Your task to perform on an android device: create a new album in the google photos Image 0: 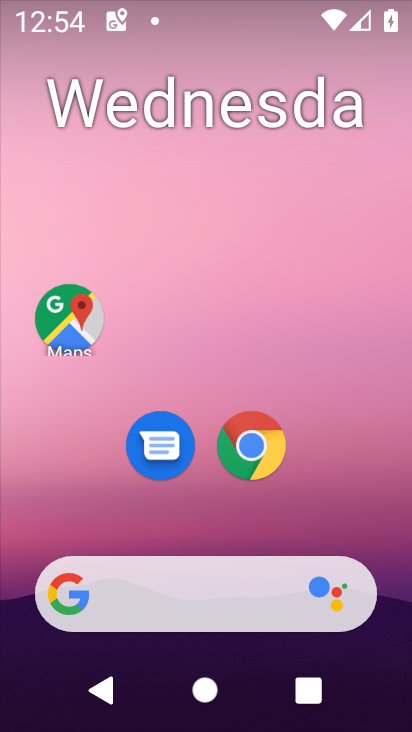
Step 0: drag from (374, 462) to (162, 228)
Your task to perform on an android device: create a new album in the google photos Image 1: 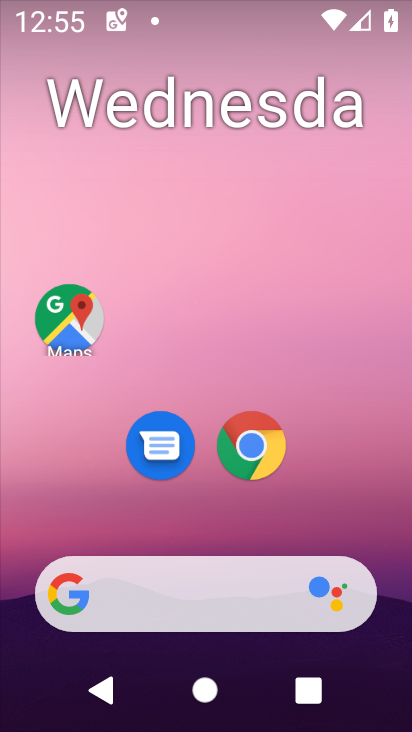
Step 1: drag from (334, 486) to (335, 158)
Your task to perform on an android device: create a new album in the google photos Image 2: 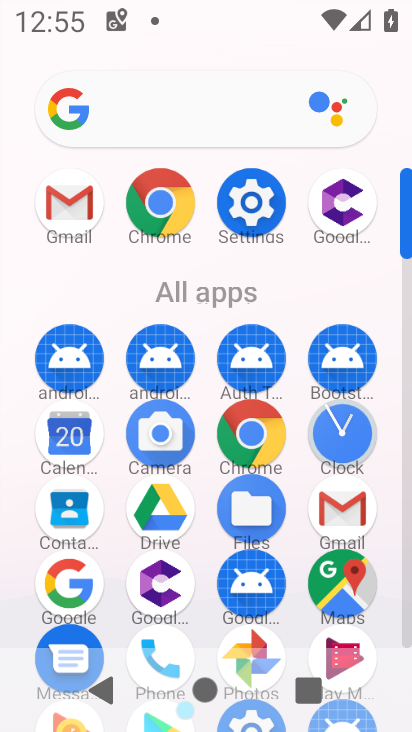
Step 2: drag from (290, 624) to (326, 304)
Your task to perform on an android device: create a new album in the google photos Image 3: 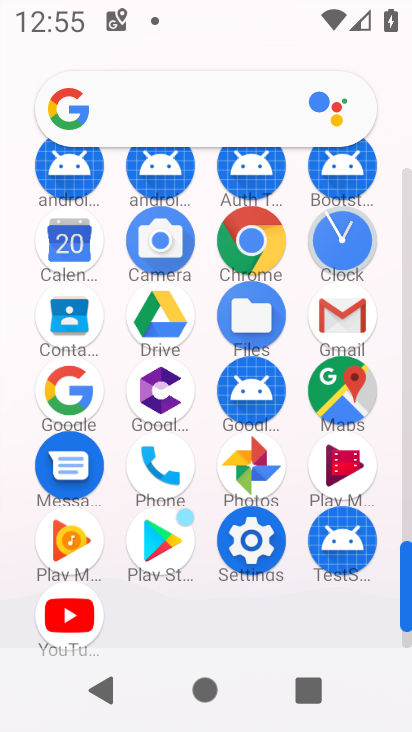
Step 3: click (261, 471)
Your task to perform on an android device: create a new album in the google photos Image 4: 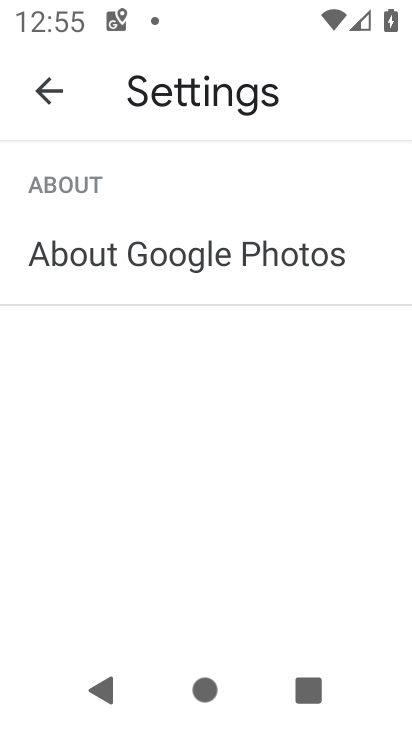
Step 4: click (51, 90)
Your task to perform on an android device: create a new album in the google photos Image 5: 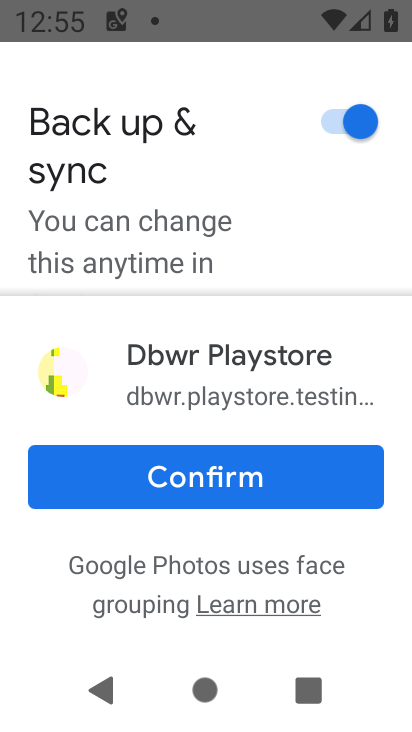
Step 5: click (178, 486)
Your task to perform on an android device: create a new album in the google photos Image 6: 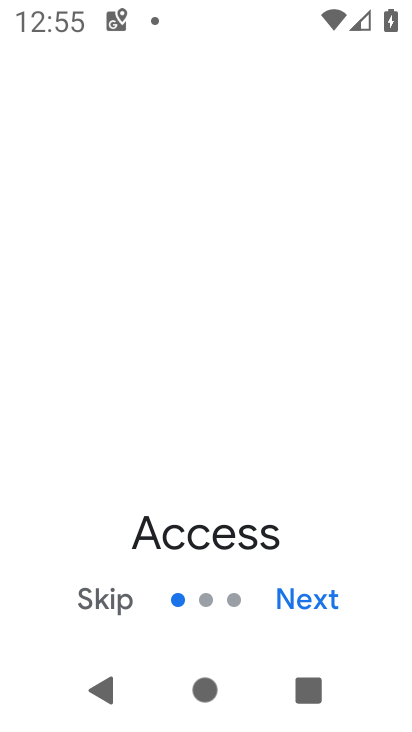
Step 6: click (320, 613)
Your task to perform on an android device: create a new album in the google photos Image 7: 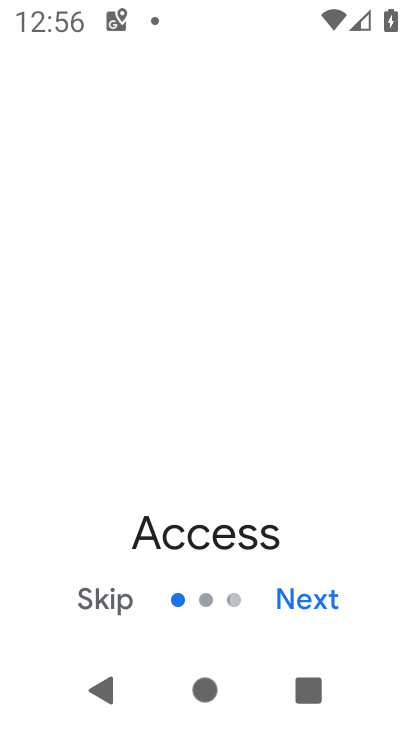
Step 7: click (319, 609)
Your task to perform on an android device: create a new album in the google photos Image 8: 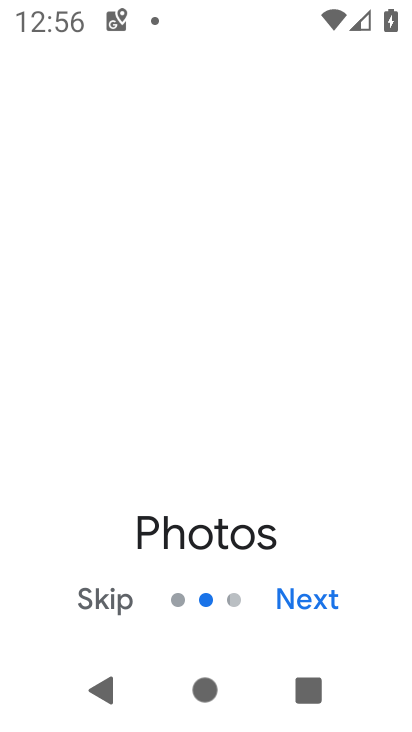
Step 8: click (319, 608)
Your task to perform on an android device: create a new album in the google photos Image 9: 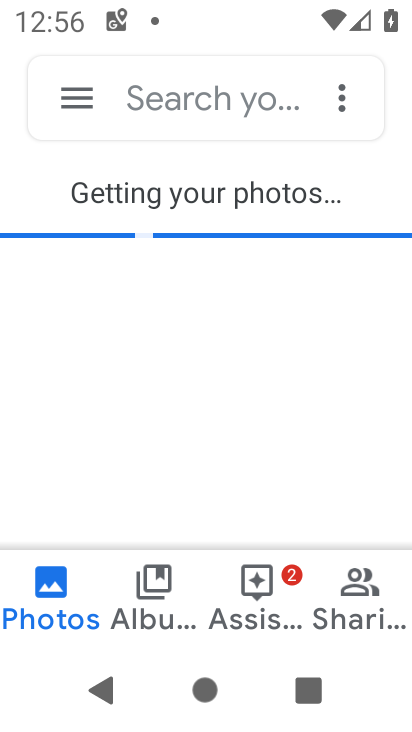
Step 9: click (150, 595)
Your task to perform on an android device: create a new album in the google photos Image 10: 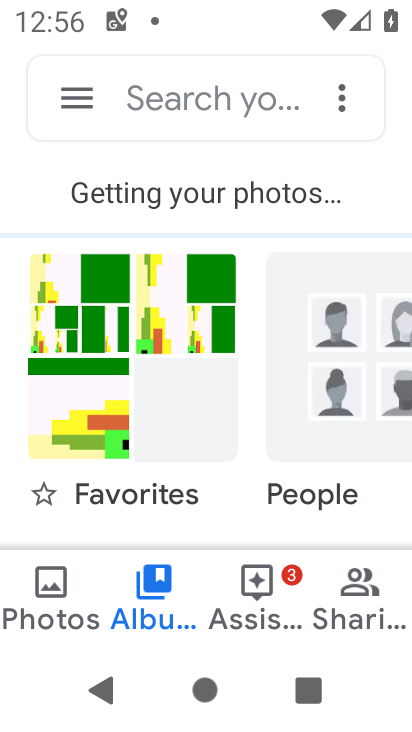
Step 10: click (338, 97)
Your task to perform on an android device: create a new album in the google photos Image 11: 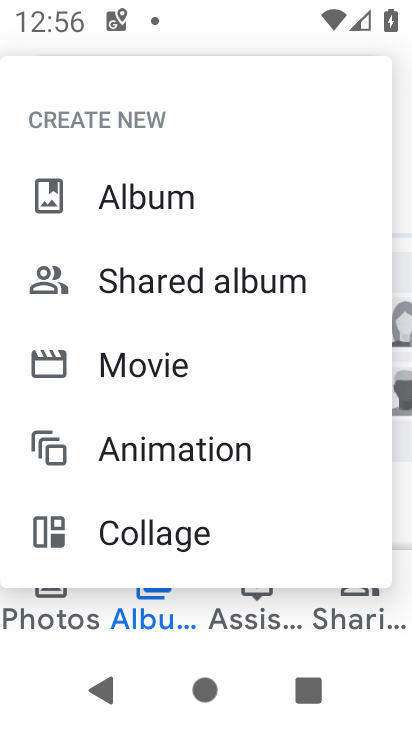
Step 11: click (171, 199)
Your task to perform on an android device: create a new album in the google photos Image 12: 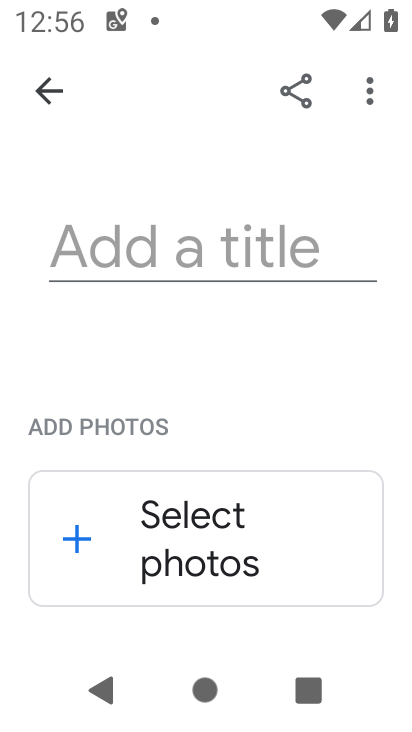
Step 12: click (202, 246)
Your task to perform on an android device: create a new album in the google photos Image 13: 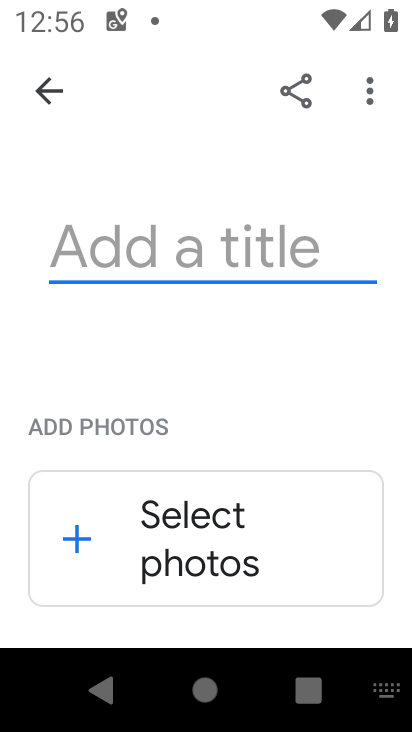
Step 13: type "jyutu"
Your task to perform on an android device: create a new album in the google photos Image 14: 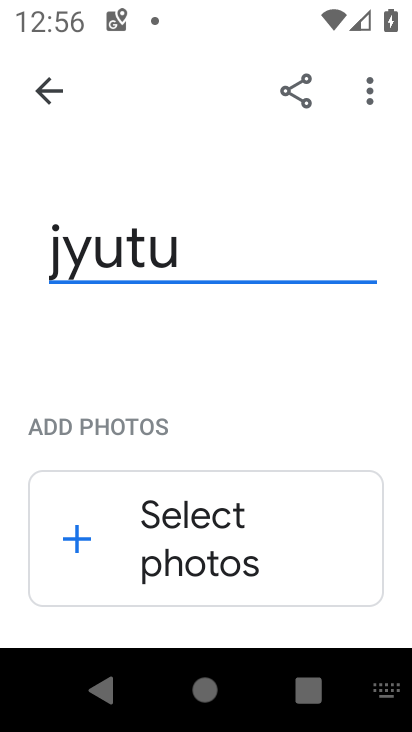
Step 14: click (220, 530)
Your task to perform on an android device: create a new album in the google photos Image 15: 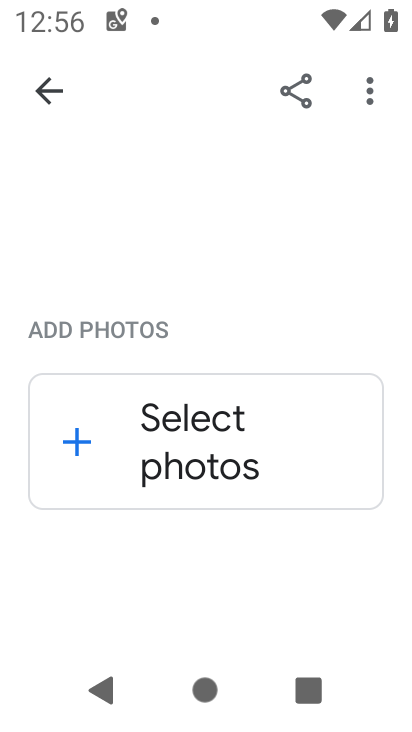
Step 15: click (215, 464)
Your task to perform on an android device: create a new album in the google photos Image 16: 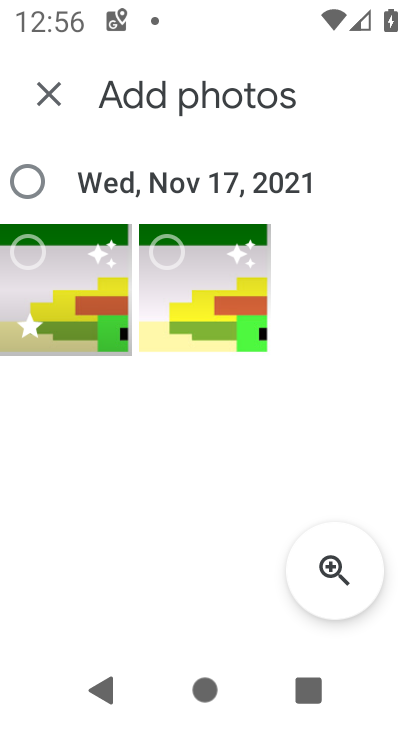
Step 16: click (205, 261)
Your task to perform on an android device: create a new album in the google photos Image 17: 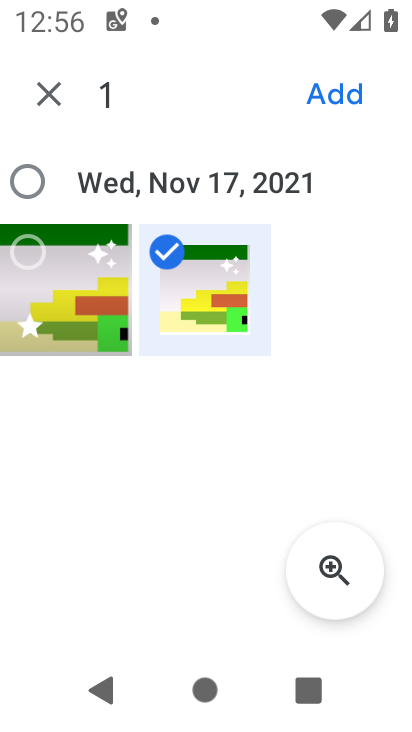
Step 17: click (329, 98)
Your task to perform on an android device: create a new album in the google photos Image 18: 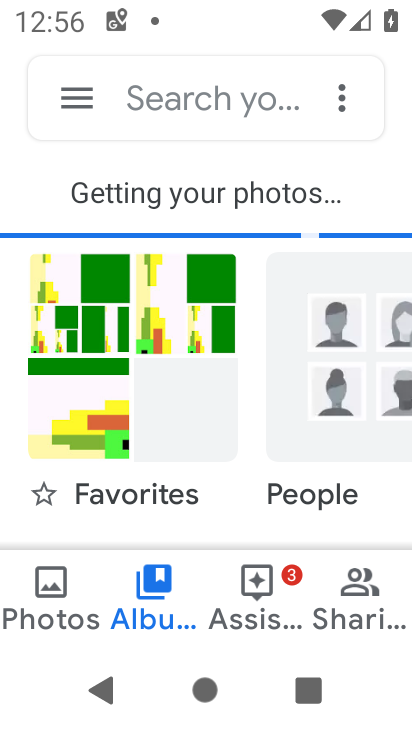
Step 18: task complete